Your task to perform on an android device: Open display settings Image 0: 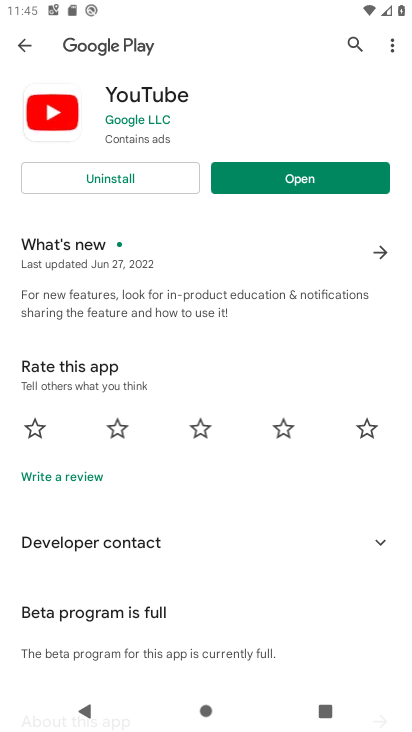
Step 0: press home button
Your task to perform on an android device: Open display settings Image 1: 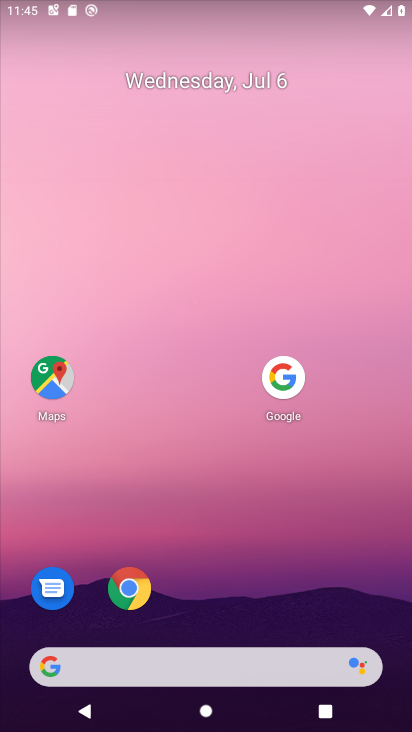
Step 1: drag from (154, 639) to (328, 7)
Your task to perform on an android device: Open display settings Image 2: 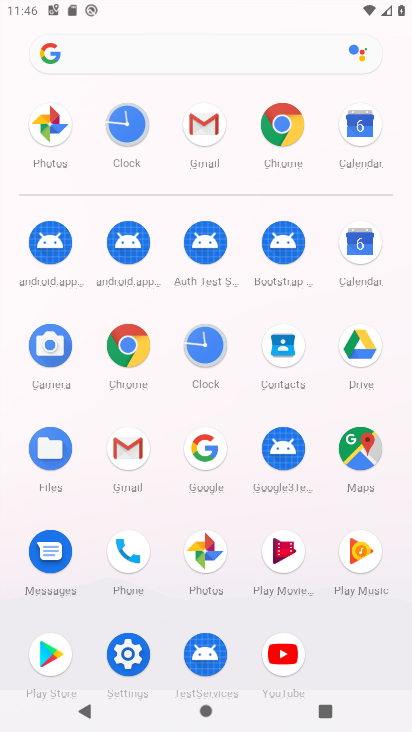
Step 2: click (130, 650)
Your task to perform on an android device: Open display settings Image 3: 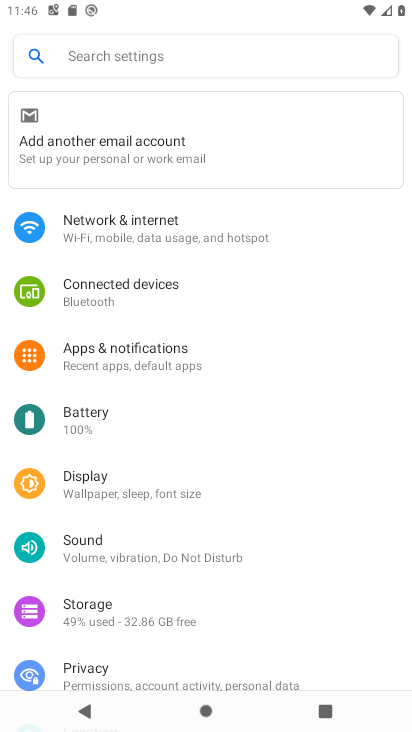
Step 3: click (121, 482)
Your task to perform on an android device: Open display settings Image 4: 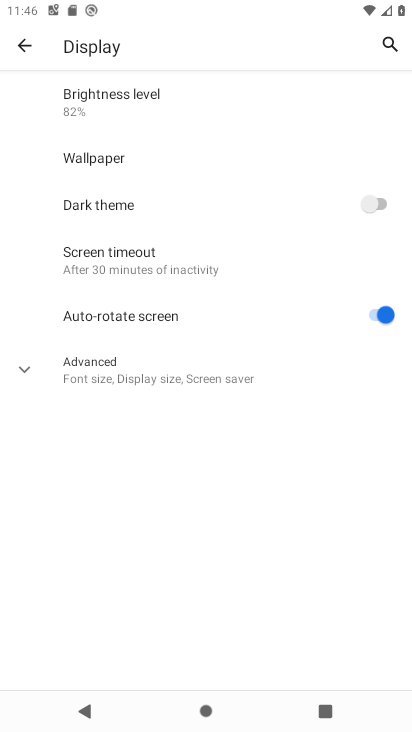
Step 4: task complete